Your task to perform on an android device: empty trash in the gmail app Image 0: 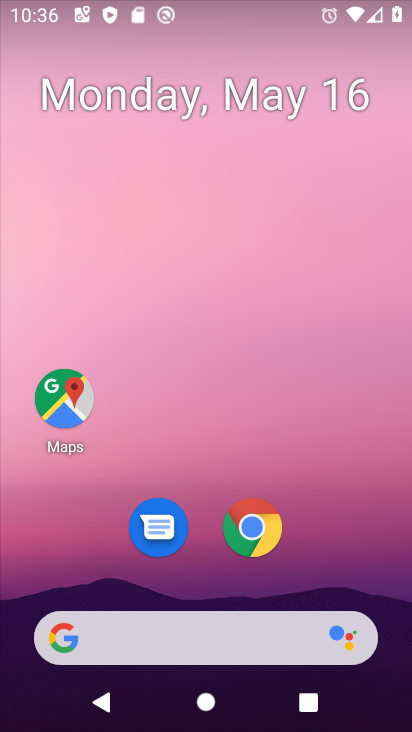
Step 0: drag from (377, 532) to (338, 6)
Your task to perform on an android device: empty trash in the gmail app Image 1: 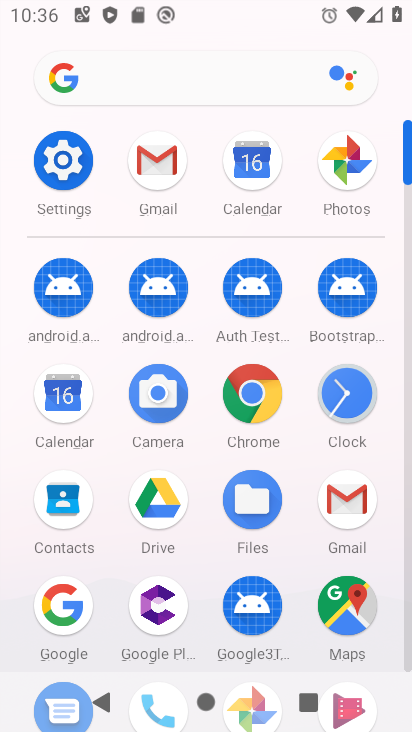
Step 1: click (154, 172)
Your task to perform on an android device: empty trash in the gmail app Image 2: 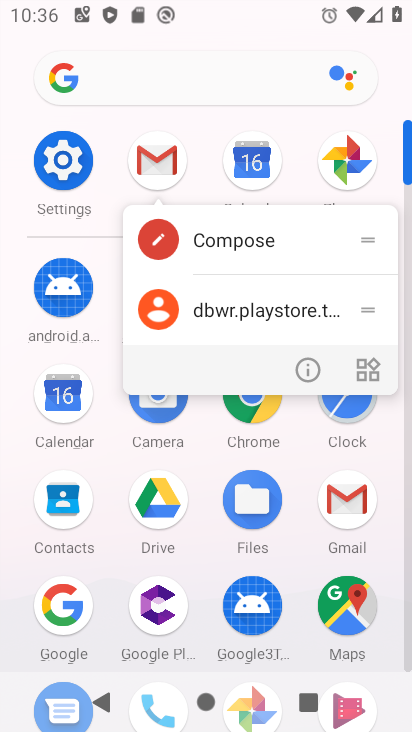
Step 2: click (155, 172)
Your task to perform on an android device: empty trash in the gmail app Image 3: 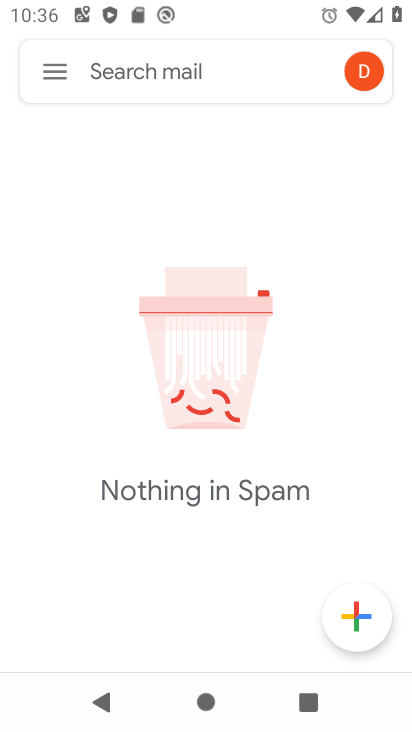
Step 3: click (44, 73)
Your task to perform on an android device: empty trash in the gmail app Image 4: 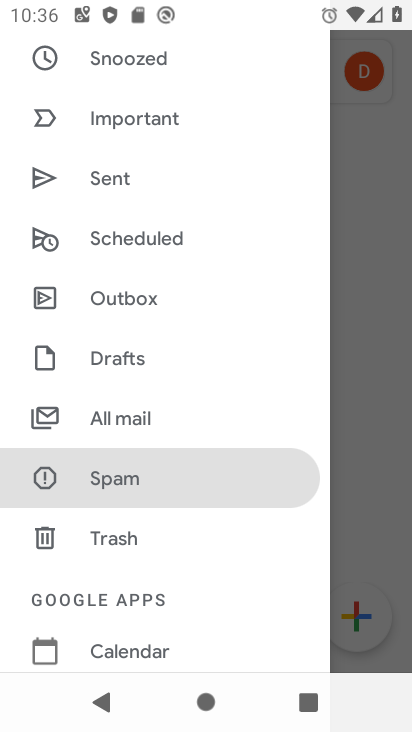
Step 4: click (121, 535)
Your task to perform on an android device: empty trash in the gmail app Image 5: 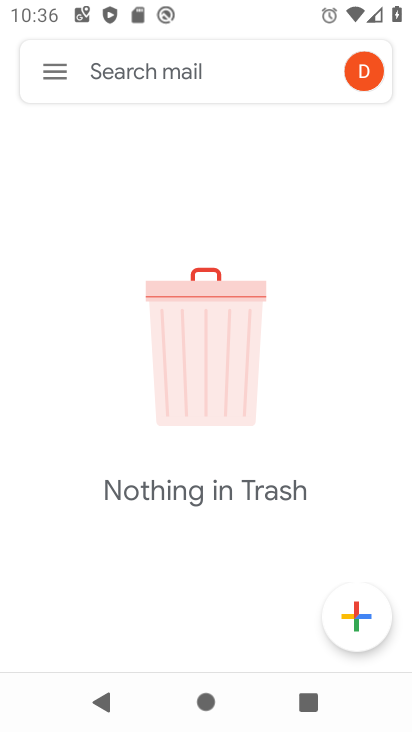
Step 5: task complete